Your task to perform on an android device: open app "Walmart Shopping & Grocery" (install if not already installed) and enter user name: "Hans@icloud.com" and password: "executing" Image 0: 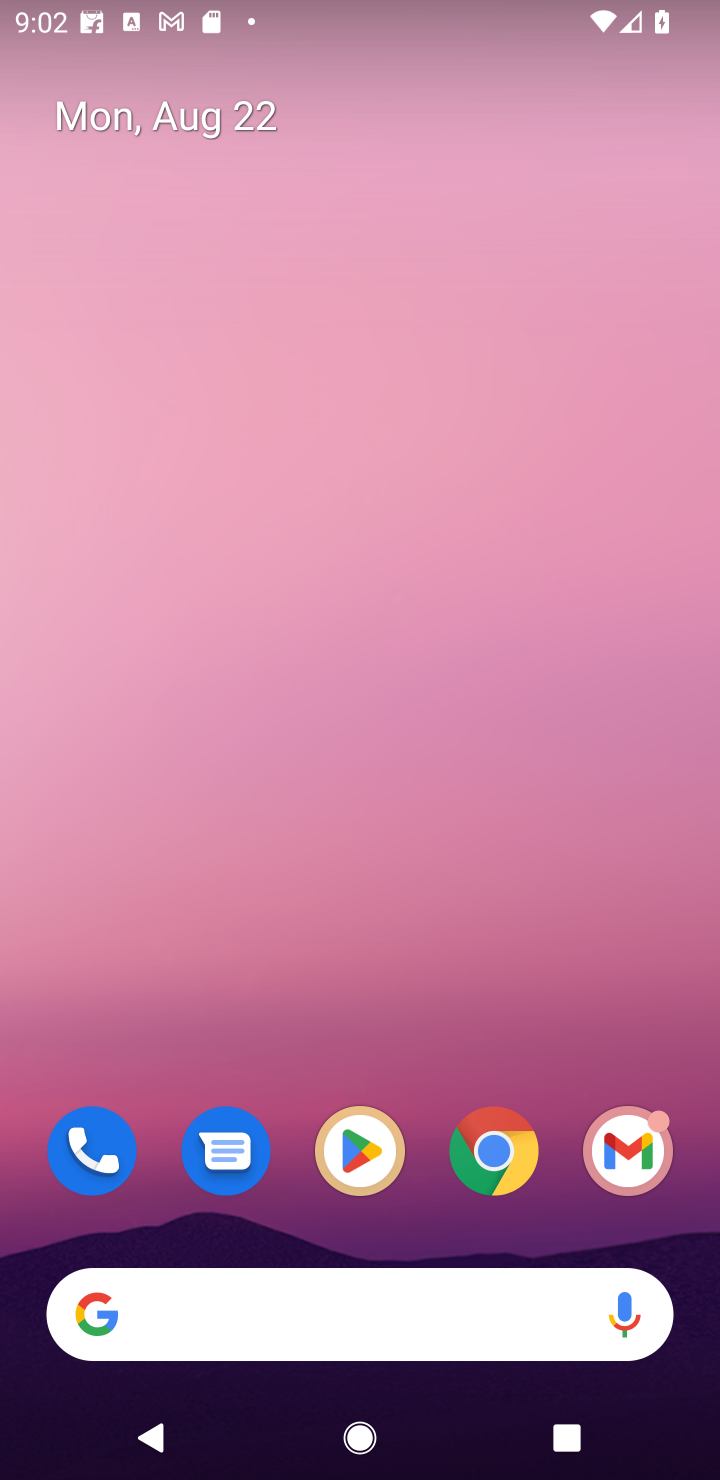
Step 0: press home button
Your task to perform on an android device: open app "Walmart Shopping & Grocery" (install if not already installed) and enter user name: "Hans@icloud.com" and password: "executing" Image 1: 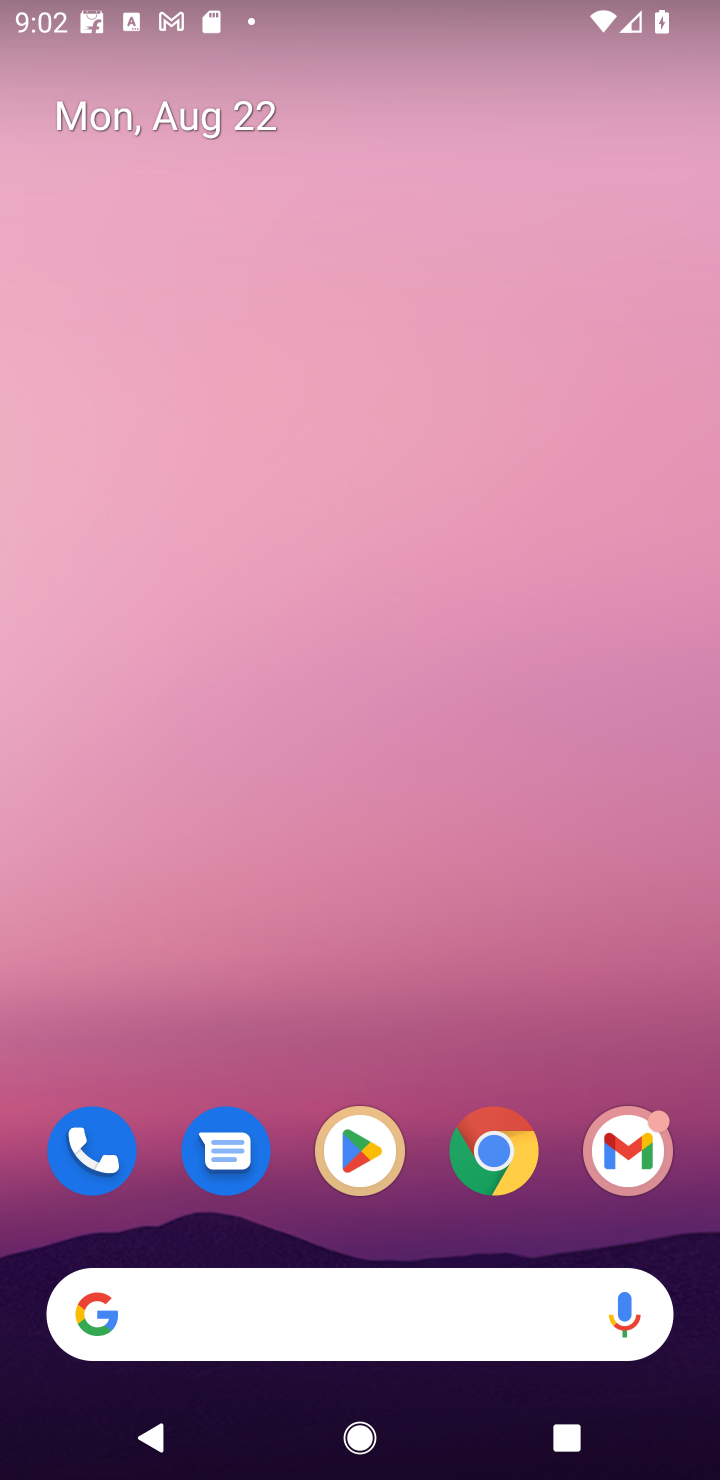
Step 1: click (362, 1158)
Your task to perform on an android device: open app "Walmart Shopping & Grocery" (install if not already installed) and enter user name: "Hans@icloud.com" and password: "executing" Image 2: 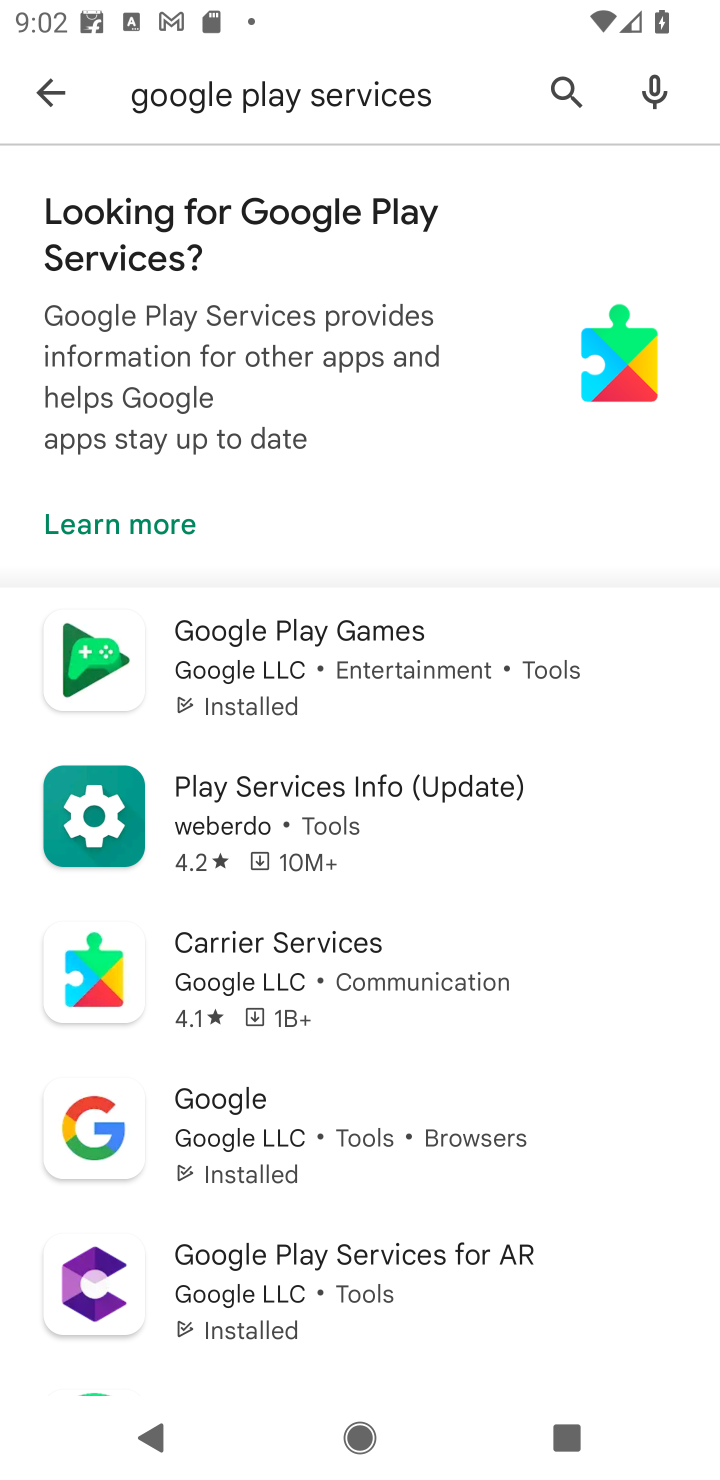
Step 2: click (567, 83)
Your task to perform on an android device: open app "Walmart Shopping & Grocery" (install if not already installed) and enter user name: "Hans@icloud.com" and password: "executing" Image 3: 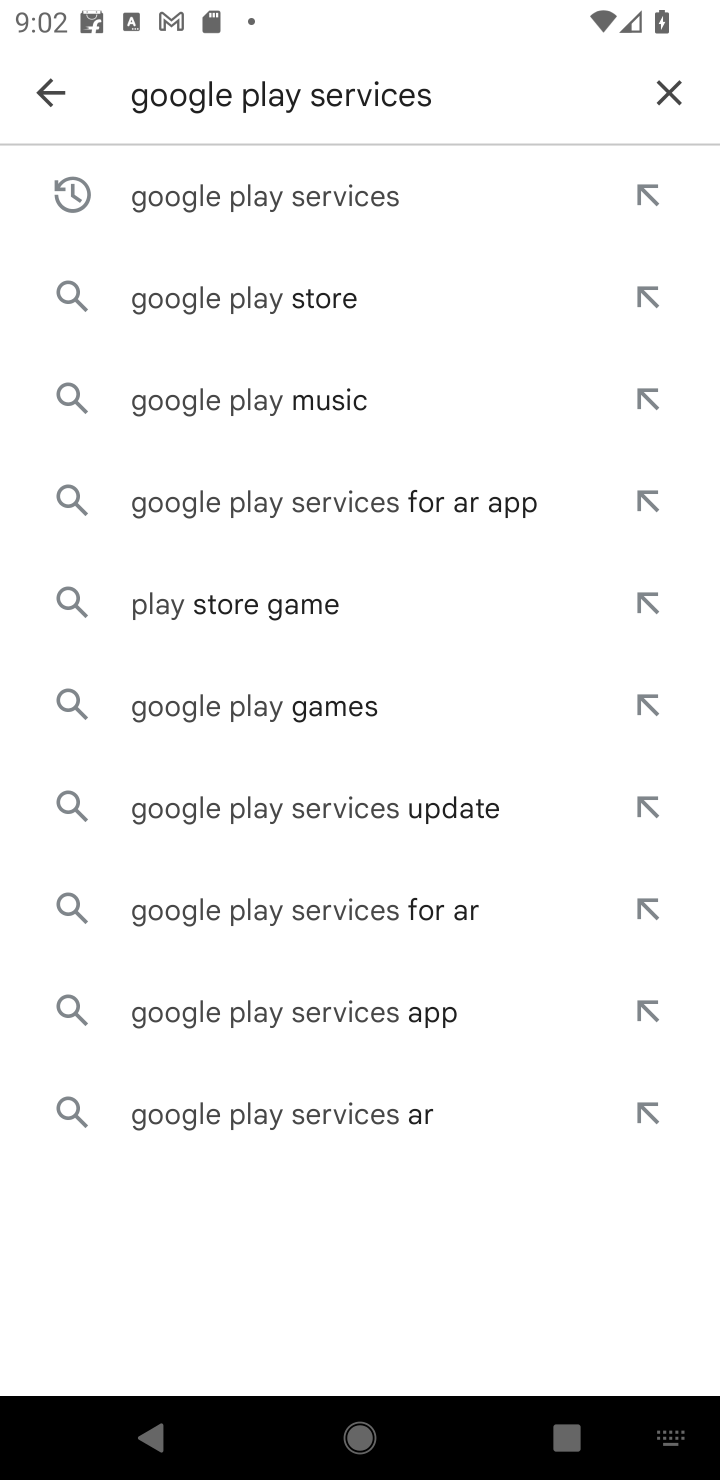
Step 3: click (654, 85)
Your task to perform on an android device: open app "Walmart Shopping & Grocery" (install if not already installed) and enter user name: "Hans@icloud.com" and password: "executing" Image 4: 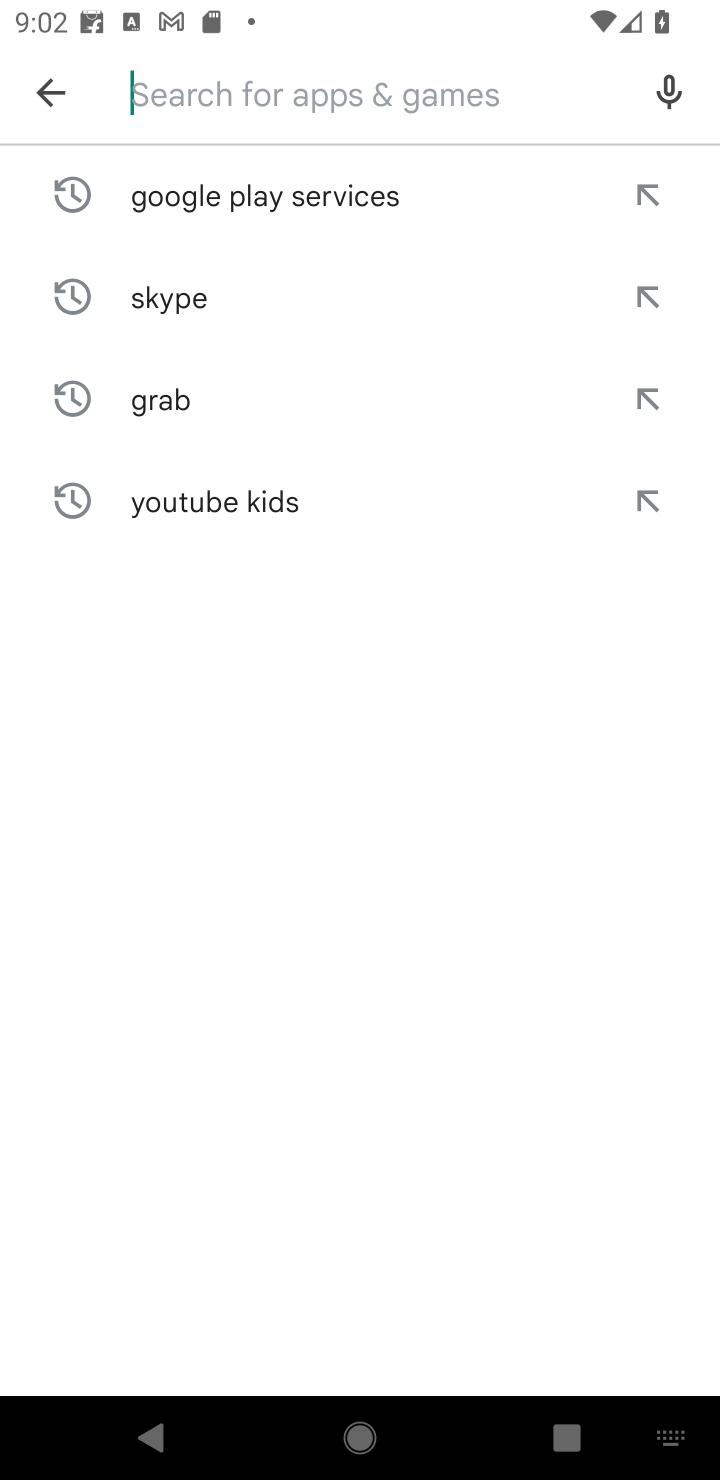
Step 4: type "Walmart Shopping & Grocery"
Your task to perform on an android device: open app "Walmart Shopping & Grocery" (install if not already installed) and enter user name: "Hans@icloud.com" and password: "executing" Image 5: 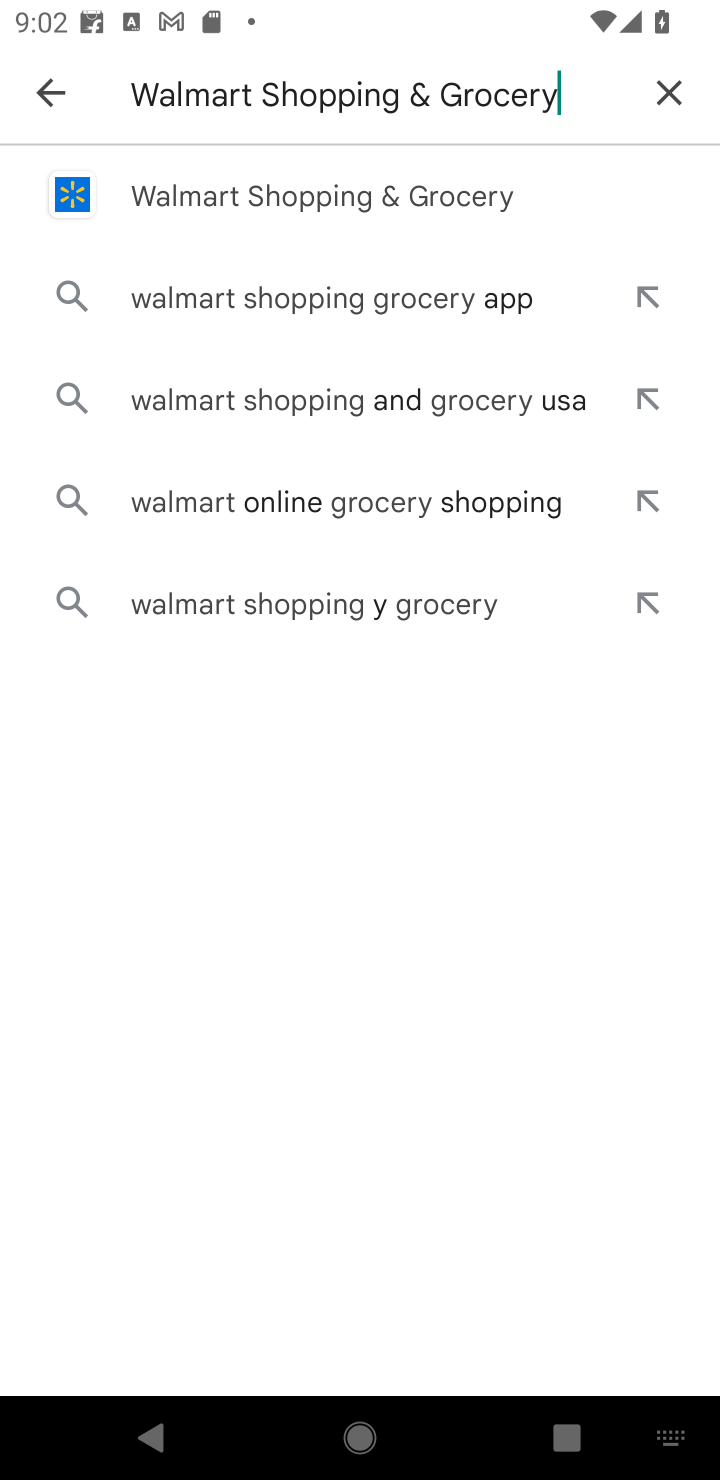
Step 5: click (172, 202)
Your task to perform on an android device: open app "Walmart Shopping & Grocery" (install if not already installed) and enter user name: "Hans@icloud.com" and password: "executing" Image 6: 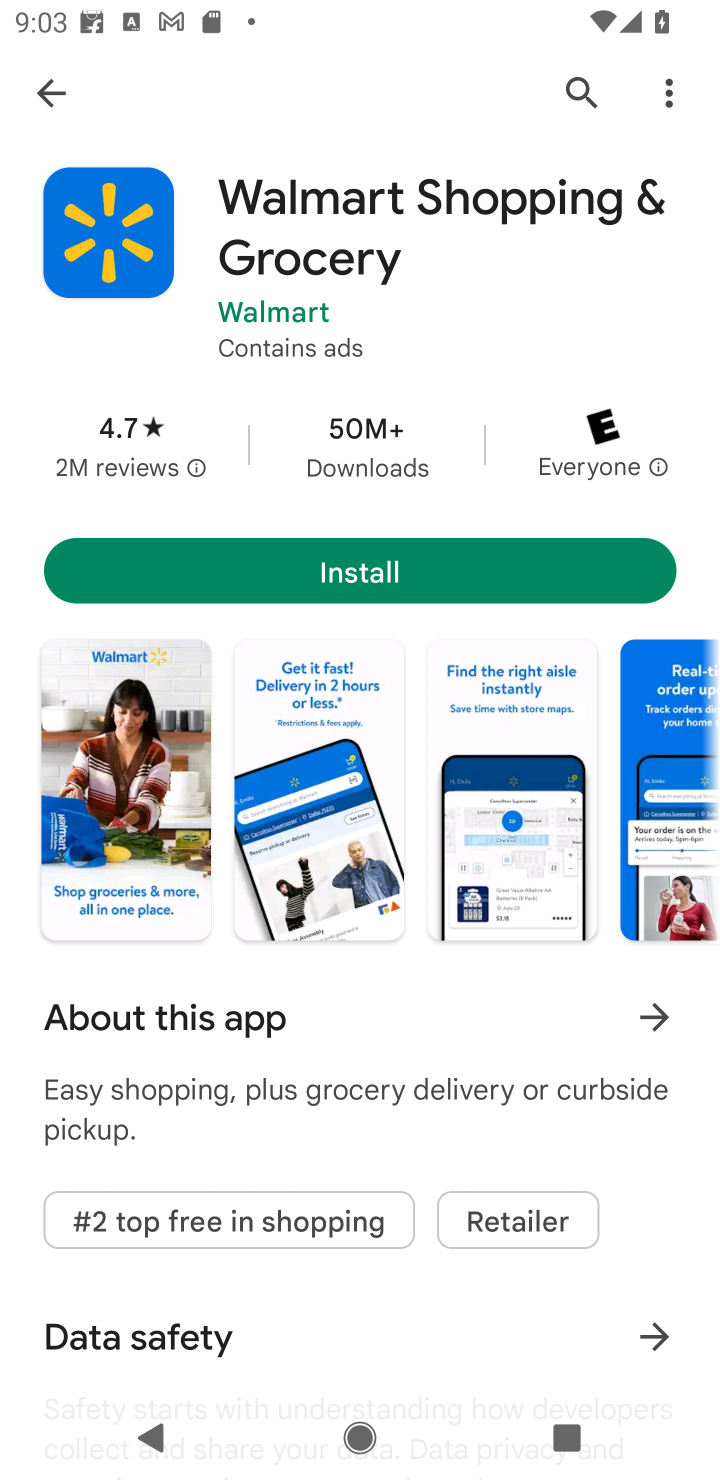
Step 6: click (463, 571)
Your task to perform on an android device: open app "Walmart Shopping & Grocery" (install if not already installed) and enter user name: "Hans@icloud.com" and password: "executing" Image 7: 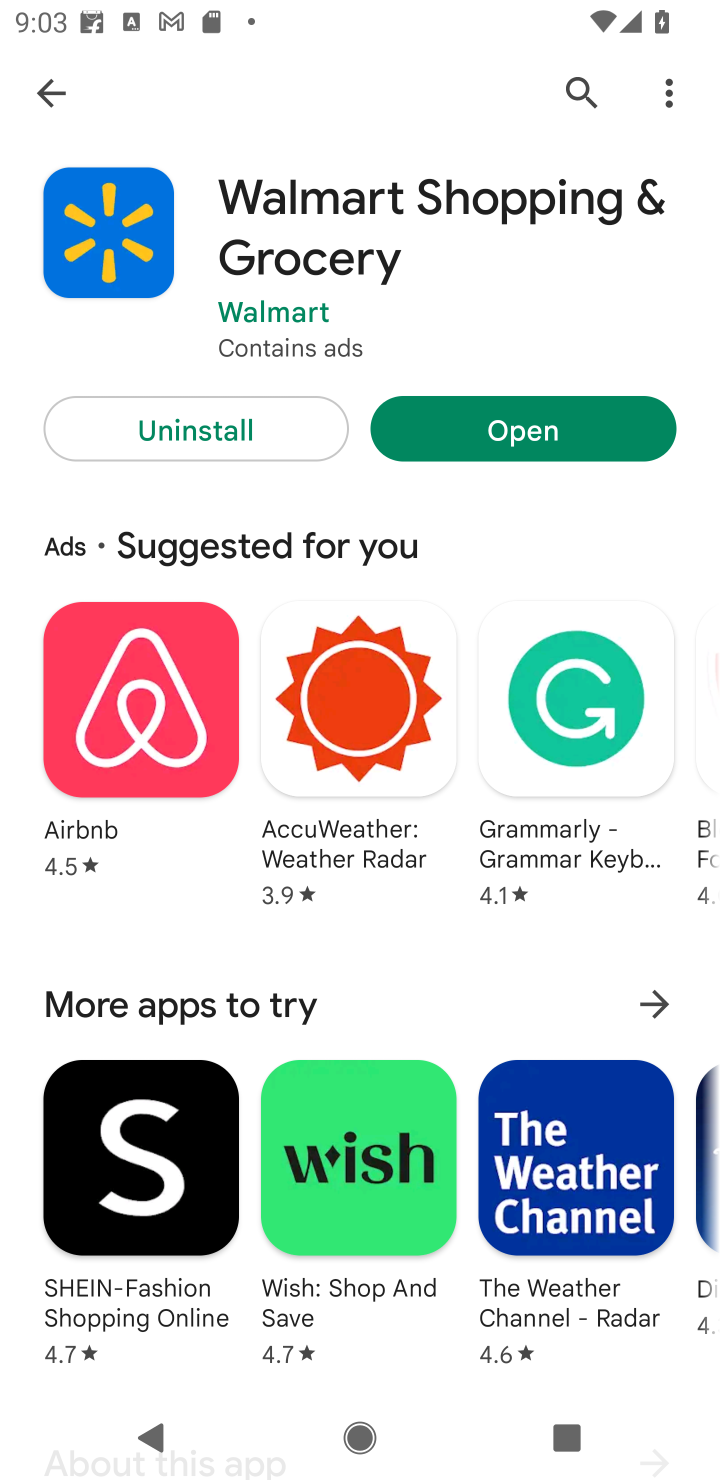
Step 7: click (546, 439)
Your task to perform on an android device: open app "Walmart Shopping & Grocery" (install if not already installed) and enter user name: "Hans@icloud.com" and password: "executing" Image 8: 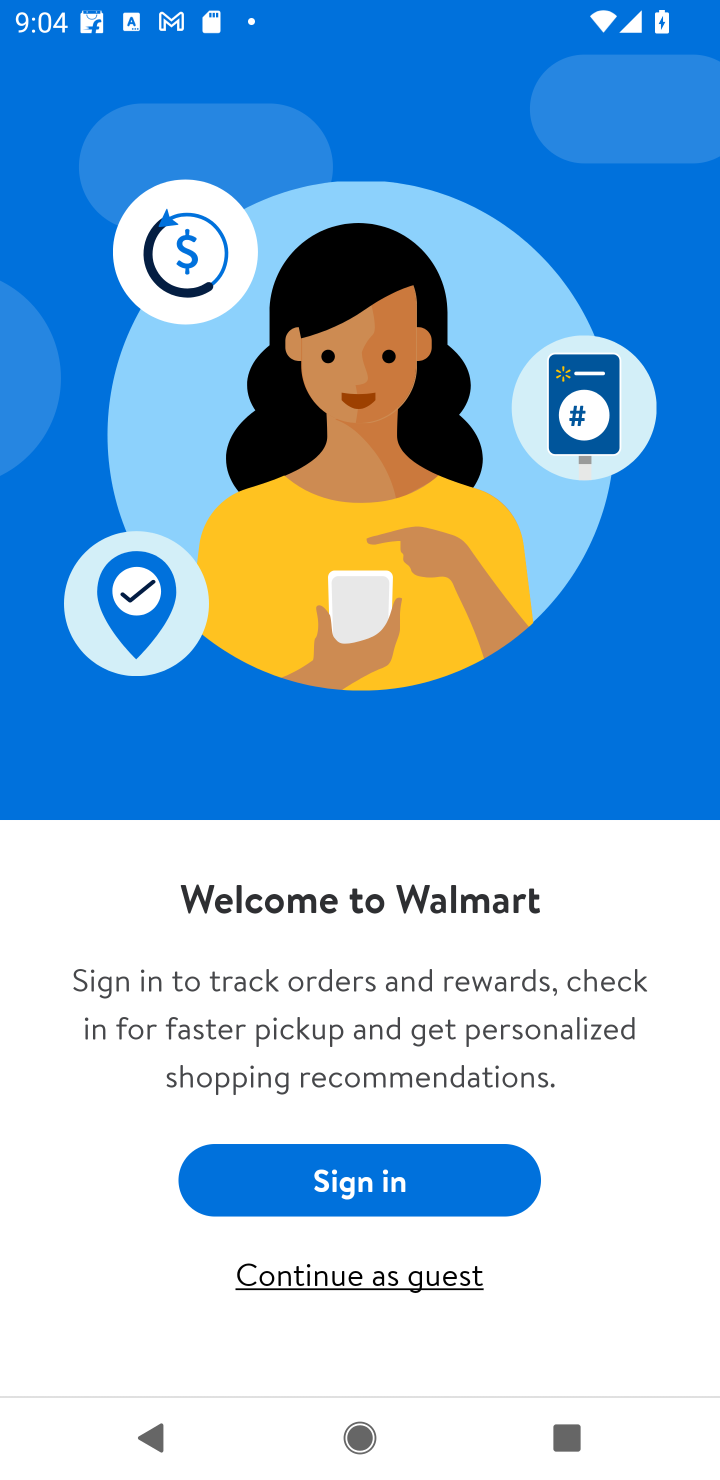
Step 8: click (420, 1179)
Your task to perform on an android device: open app "Walmart Shopping & Grocery" (install if not already installed) and enter user name: "Hans@icloud.com" and password: "executing" Image 9: 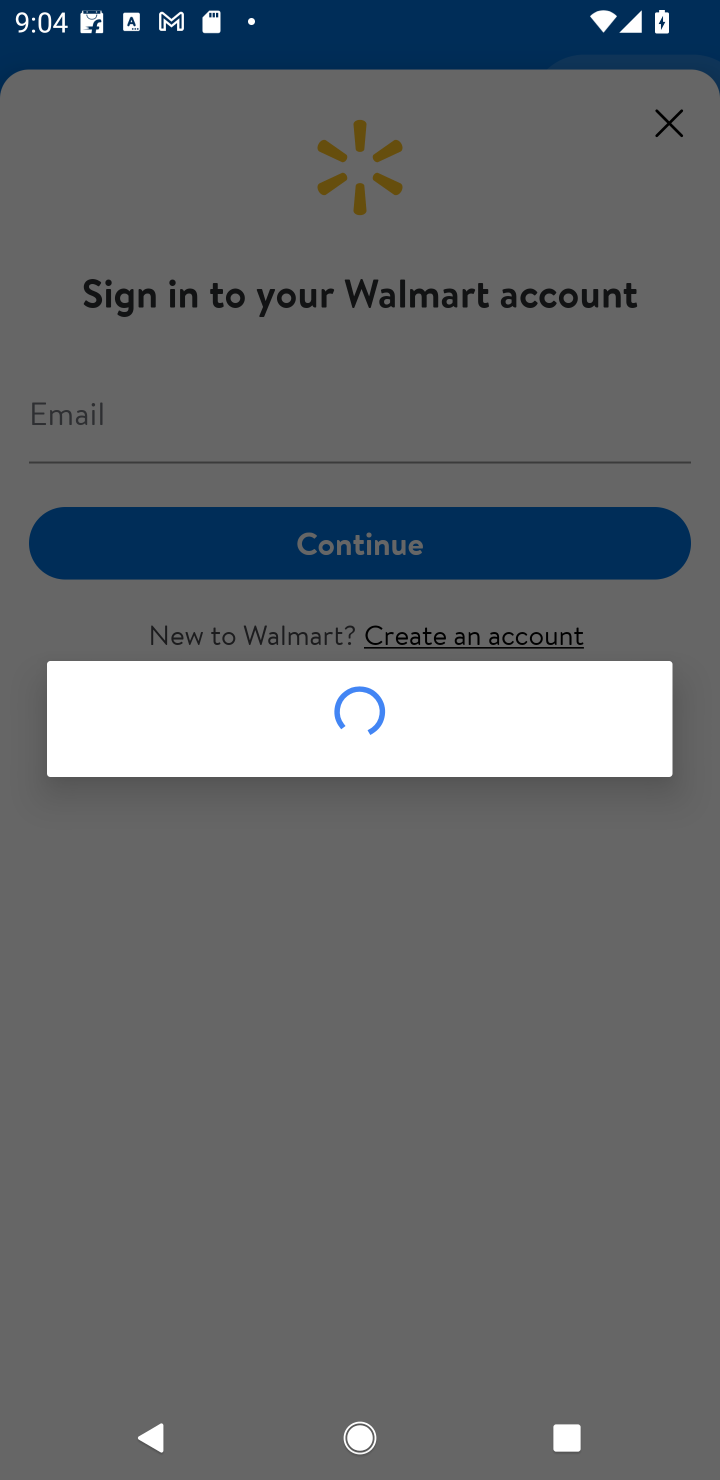
Step 9: click (147, 430)
Your task to perform on an android device: open app "Walmart Shopping & Grocery" (install if not already installed) and enter user name: "Hans@icloud.com" and password: "executing" Image 10: 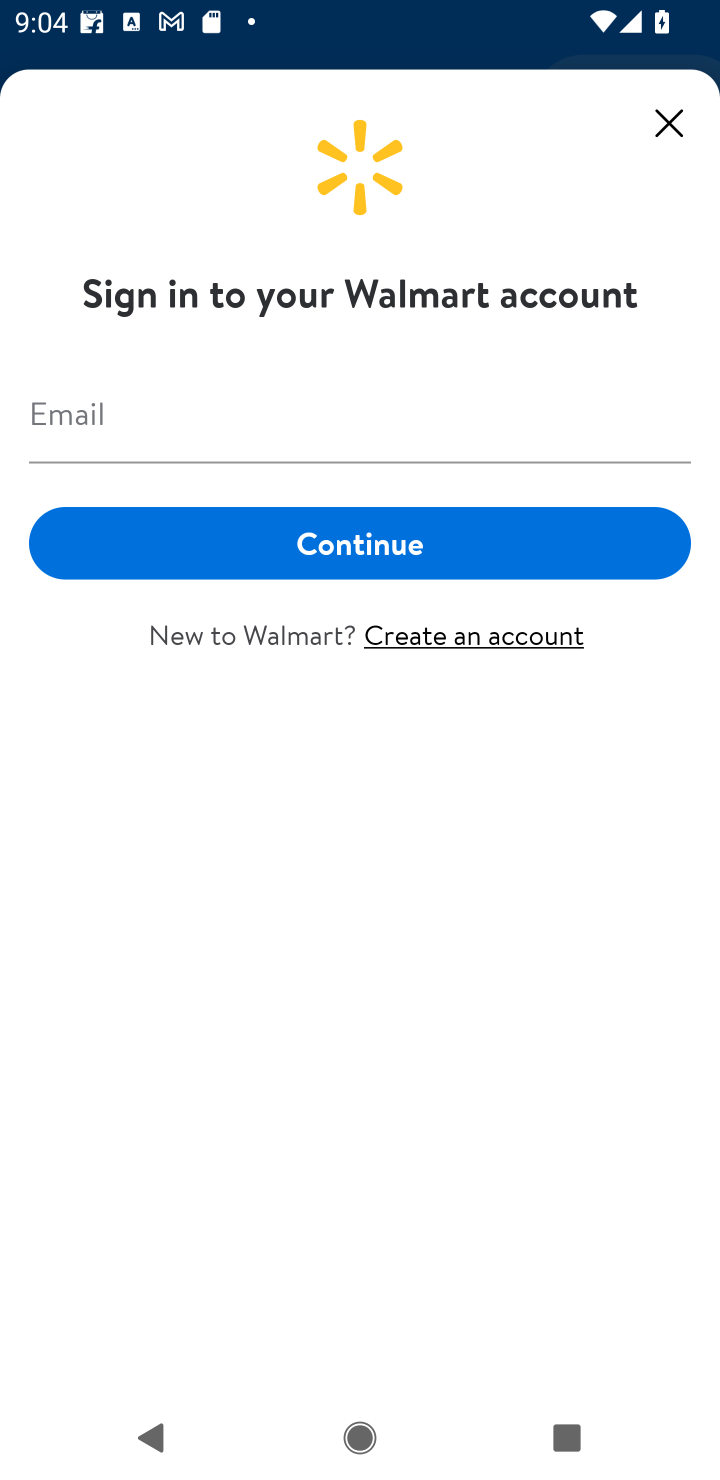
Step 10: click (104, 422)
Your task to perform on an android device: open app "Walmart Shopping & Grocery" (install if not already installed) and enter user name: "Hans@icloud.com" and password: "executing" Image 11: 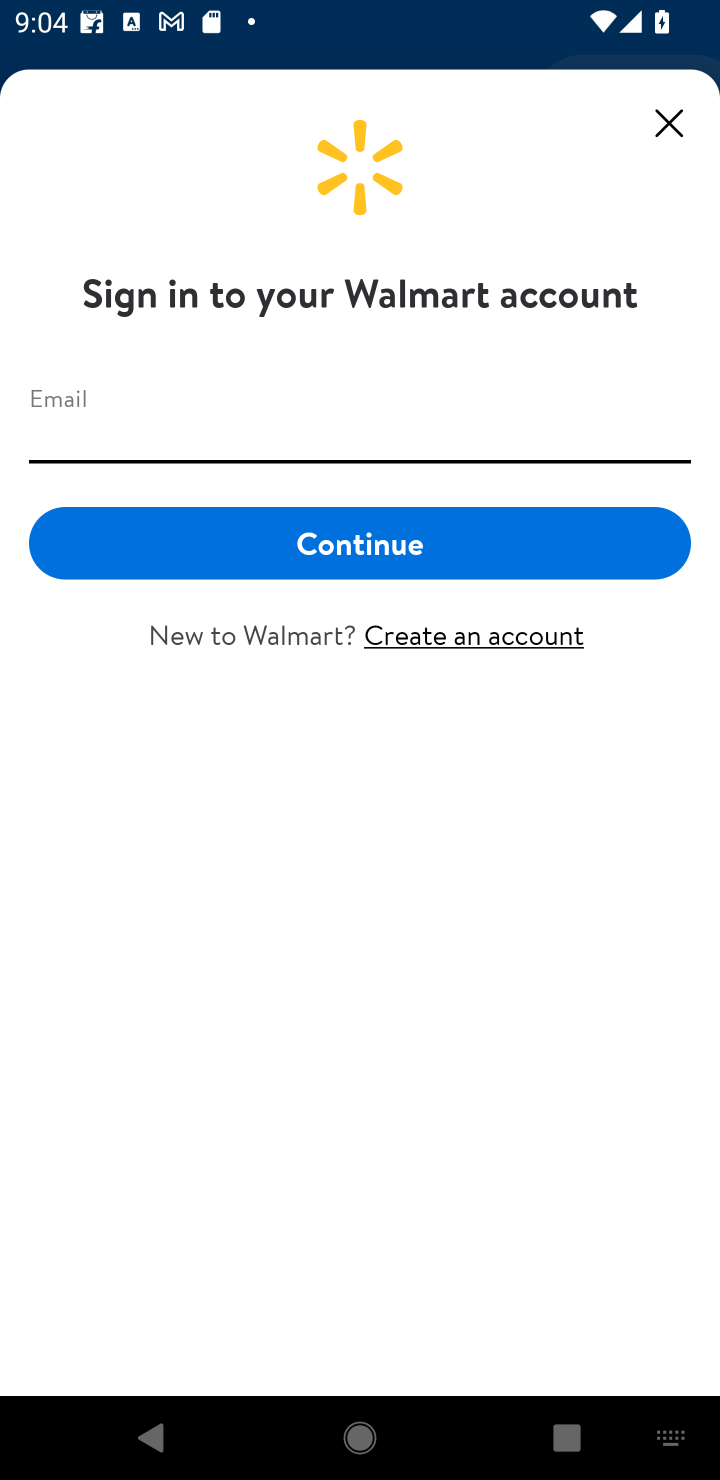
Step 11: type "Hans@icloud.com"
Your task to perform on an android device: open app "Walmart Shopping & Grocery" (install if not already installed) and enter user name: "Hans@icloud.com" and password: "executing" Image 12: 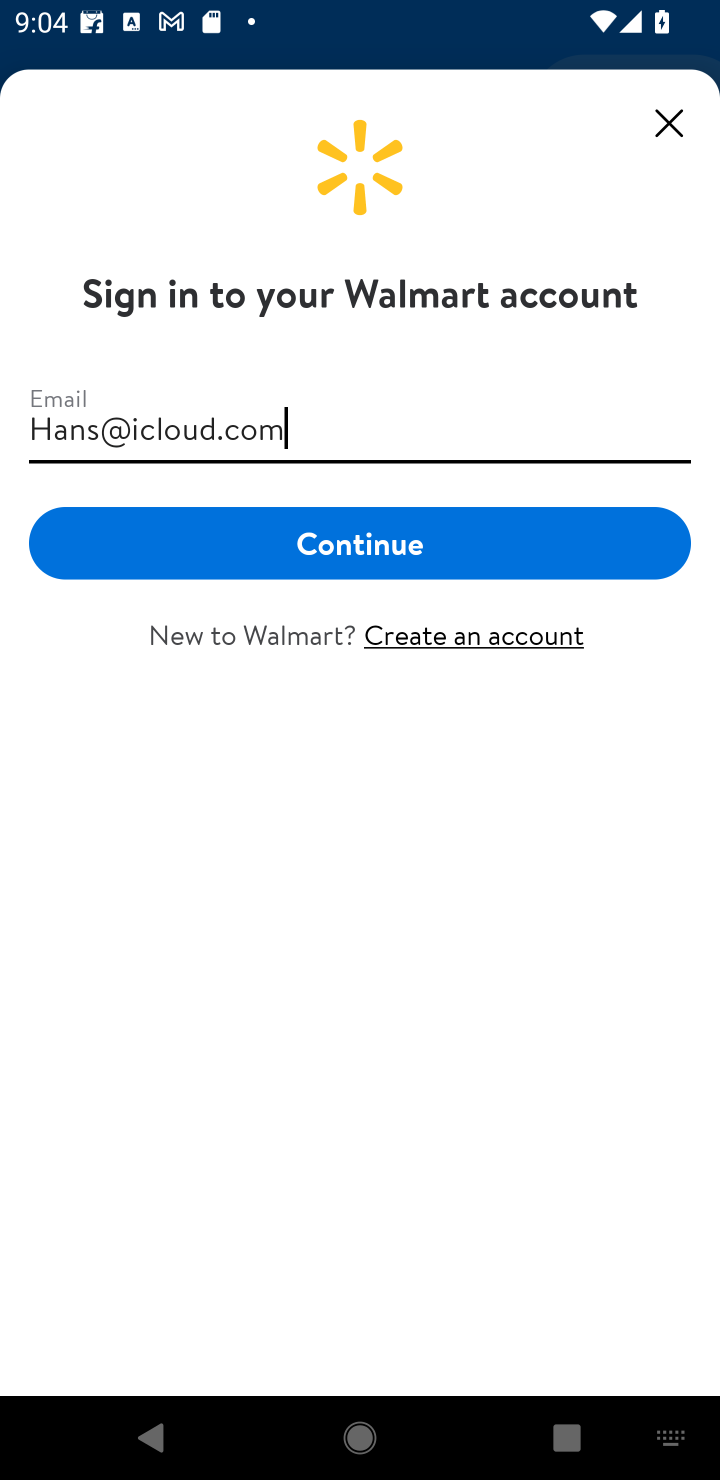
Step 12: click (448, 540)
Your task to perform on an android device: open app "Walmart Shopping & Grocery" (install if not already installed) and enter user name: "Hans@icloud.com" and password: "executing" Image 13: 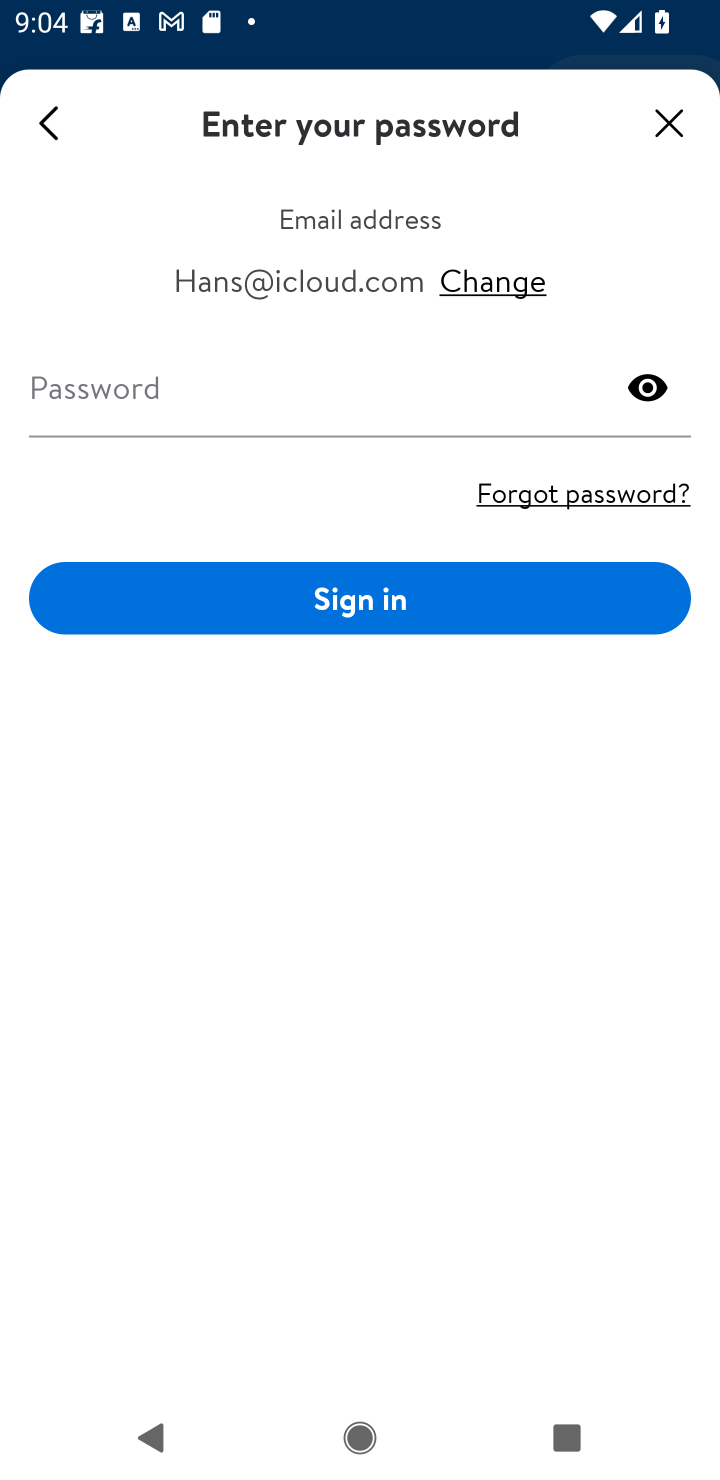
Step 13: click (113, 387)
Your task to perform on an android device: open app "Walmart Shopping & Grocery" (install if not already installed) and enter user name: "Hans@icloud.com" and password: "executing" Image 14: 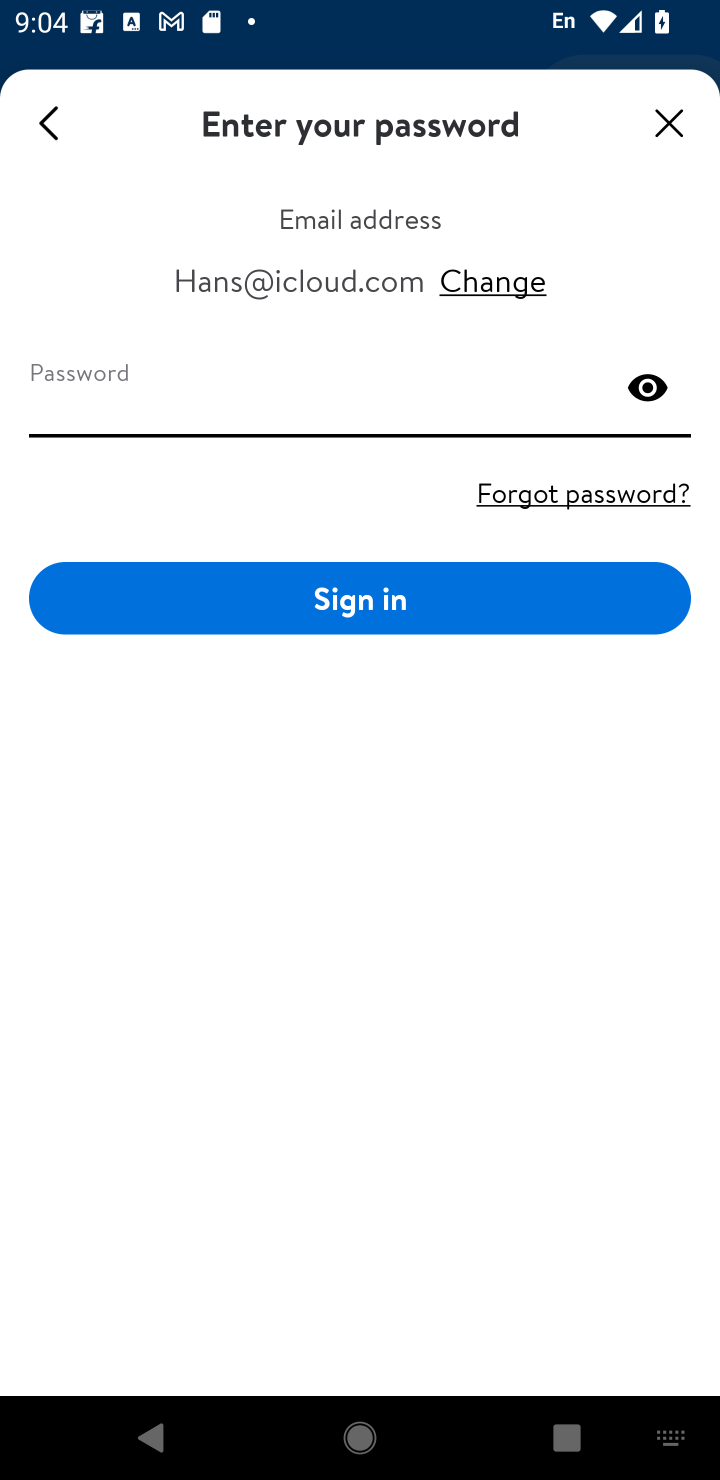
Step 14: type "executing"
Your task to perform on an android device: open app "Walmart Shopping & Grocery" (install if not already installed) and enter user name: "Hans@icloud.com" and password: "executing" Image 15: 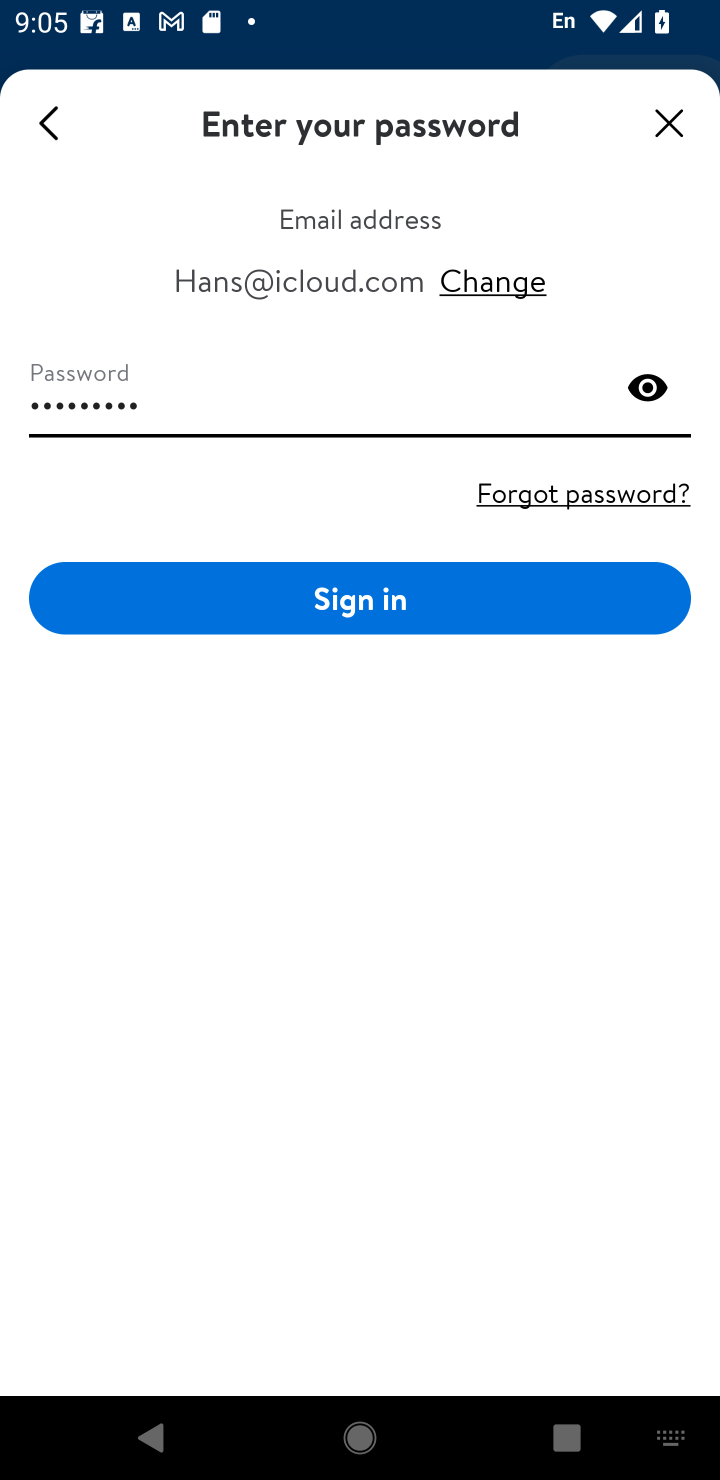
Step 15: task complete